Your task to perform on an android device: turn pop-ups on in chrome Image 0: 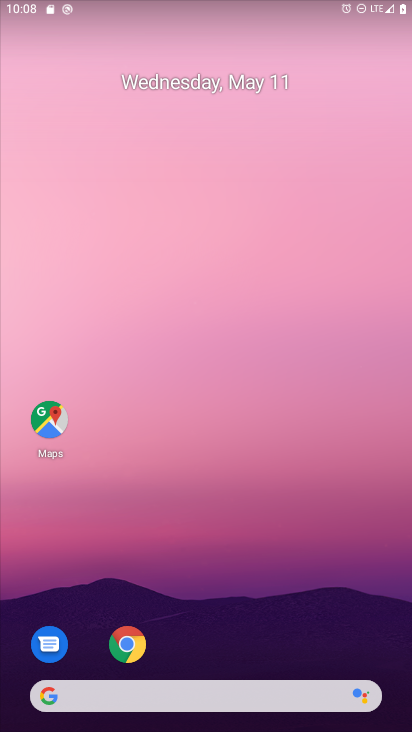
Step 0: click (129, 647)
Your task to perform on an android device: turn pop-ups on in chrome Image 1: 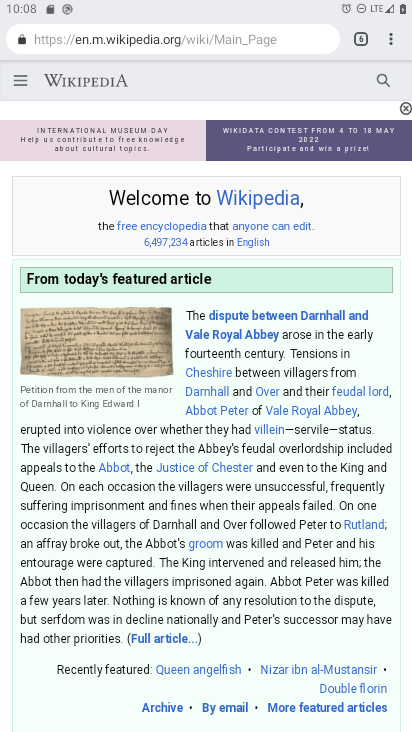
Step 1: click (388, 40)
Your task to perform on an android device: turn pop-ups on in chrome Image 2: 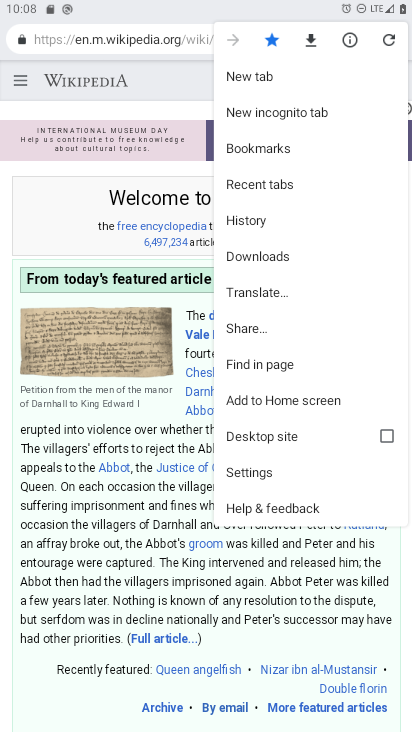
Step 2: click (258, 473)
Your task to perform on an android device: turn pop-ups on in chrome Image 3: 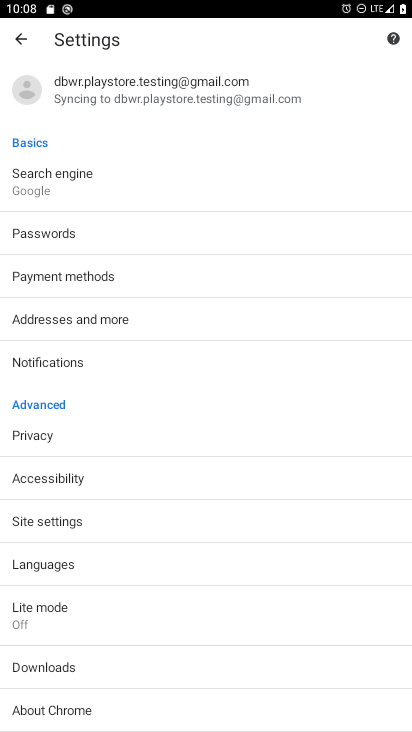
Step 3: click (55, 517)
Your task to perform on an android device: turn pop-ups on in chrome Image 4: 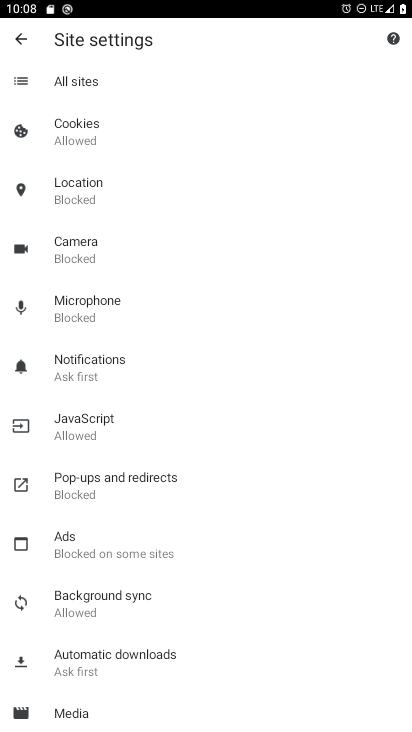
Step 4: click (113, 474)
Your task to perform on an android device: turn pop-ups on in chrome Image 5: 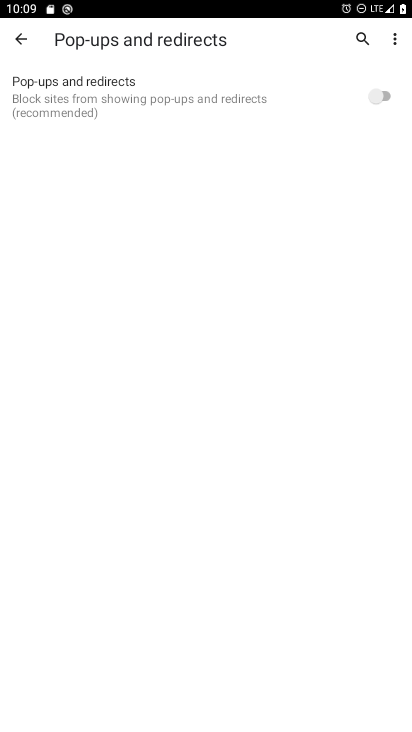
Step 5: click (375, 87)
Your task to perform on an android device: turn pop-ups on in chrome Image 6: 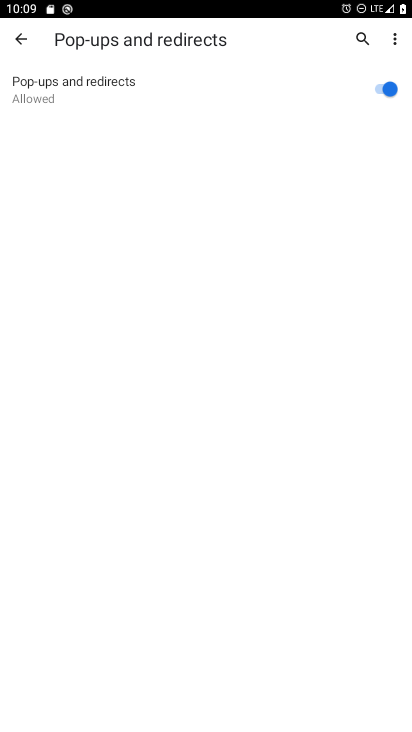
Step 6: task complete